Your task to perform on an android device: turn on javascript in the chrome app Image 0: 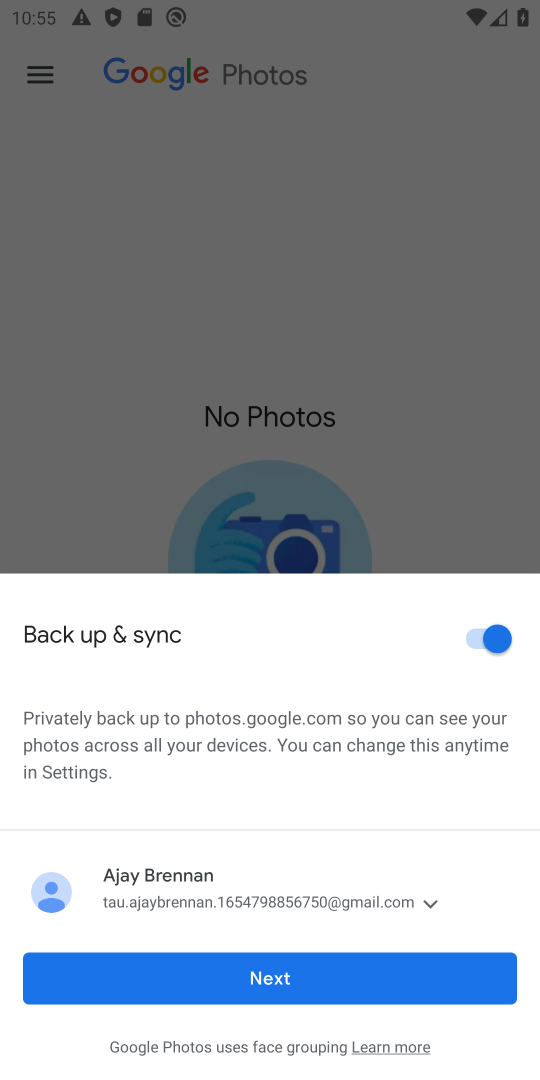
Step 0: press home button
Your task to perform on an android device: turn on javascript in the chrome app Image 1: 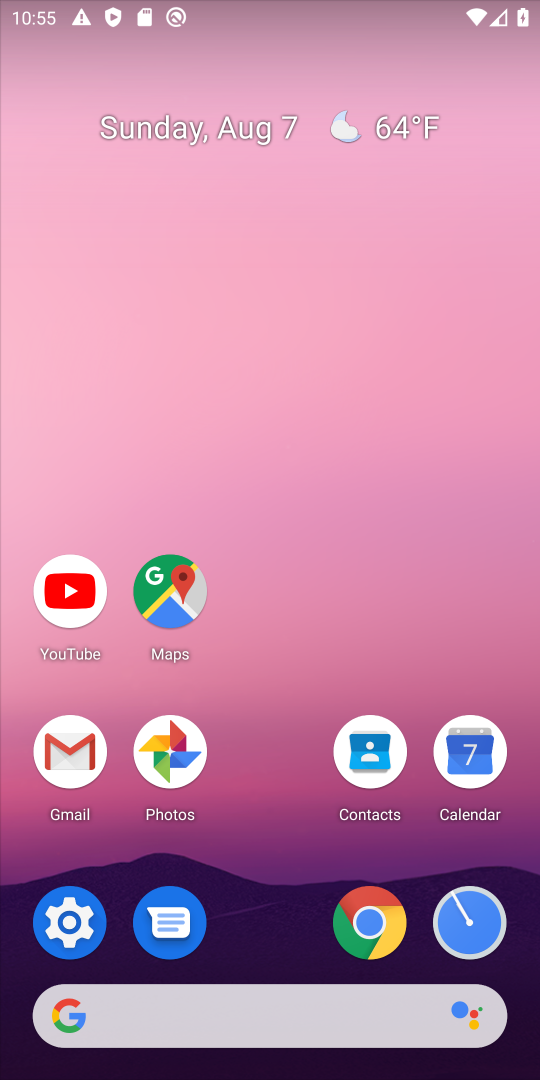
Step 1: click (364, 925)
Your task to perform on an android device: turn on javascript in the chrome app Image 2: 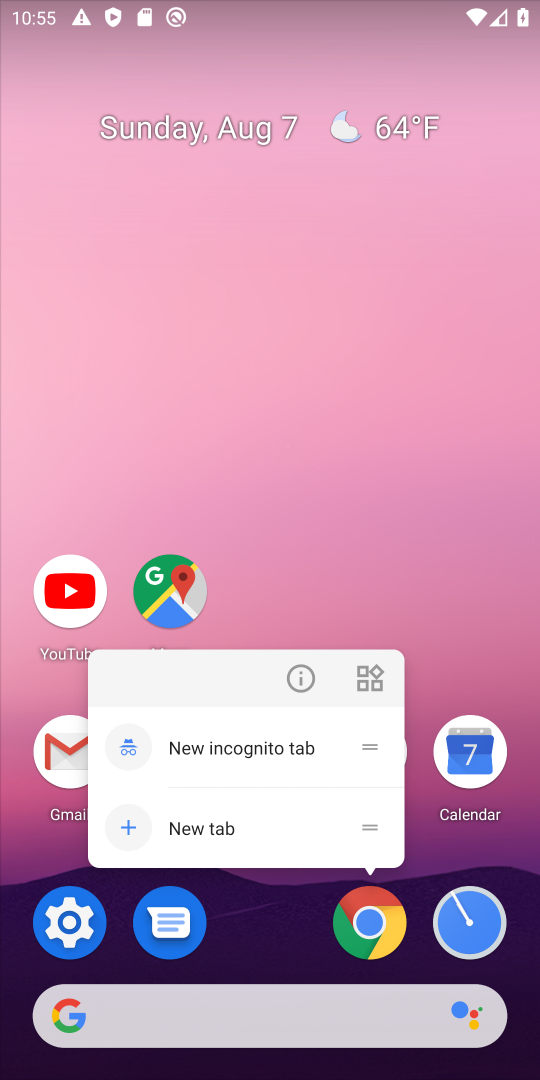
Step 2: click (382, 910)
Your task to perform on an android device: turn on javascript in the chrome app Image 3: 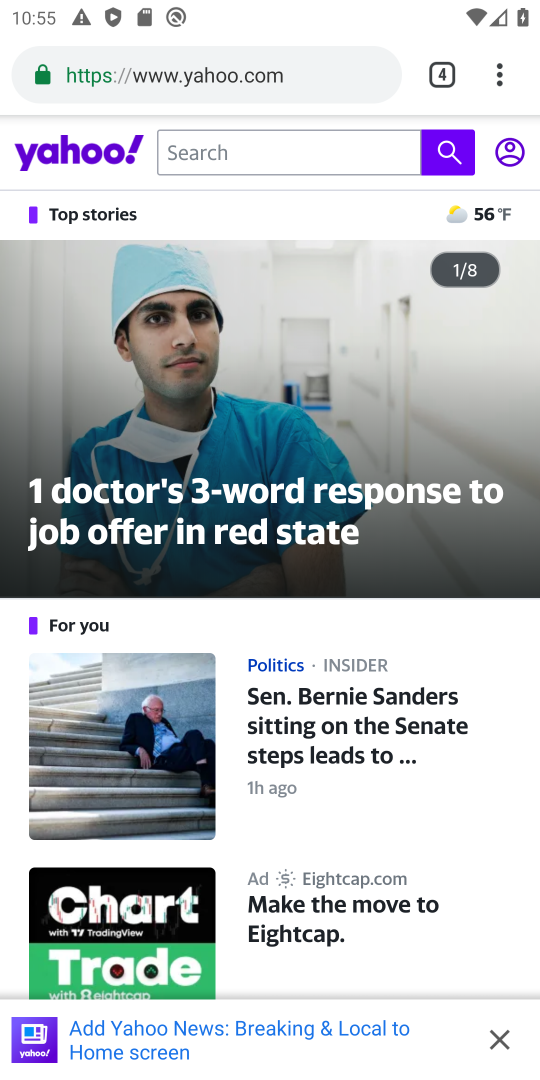
Step 3: click (496, 80)
Your task to perform on an android device: turn on javascript in the chrome app Image 4: 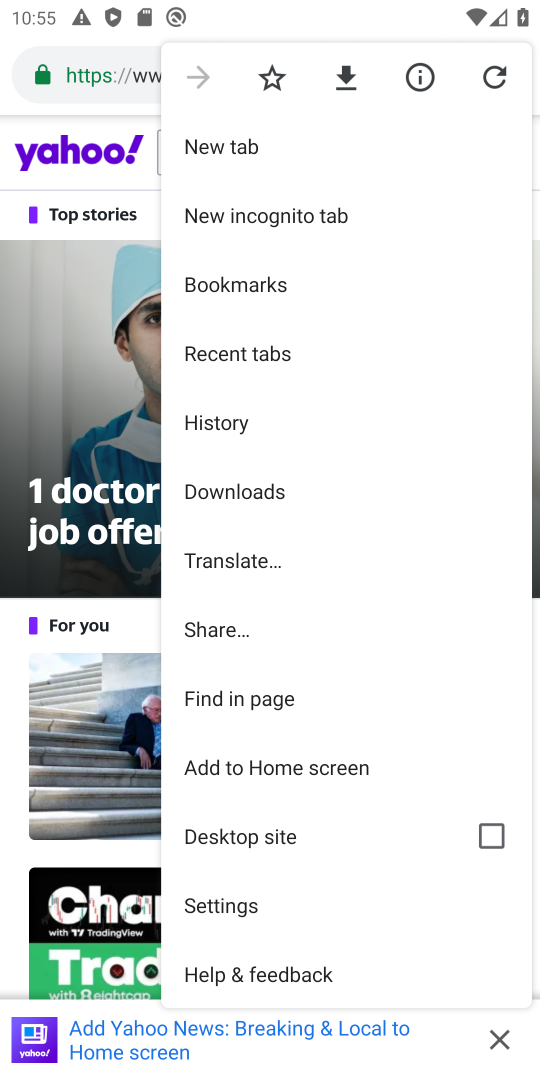
Step 4: click (217, 901)
Your task to perform on an android device: turn on javascript in the chrome app Image 5: 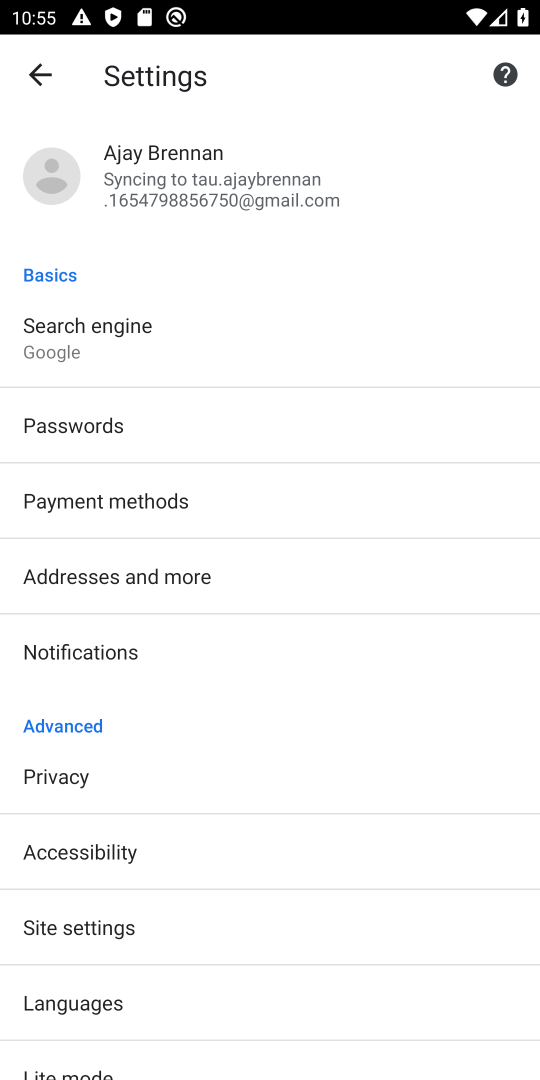
Step 5: click (76, 916)
Your task to perform on an android device: turn on javascript in the chrome app Image 6: 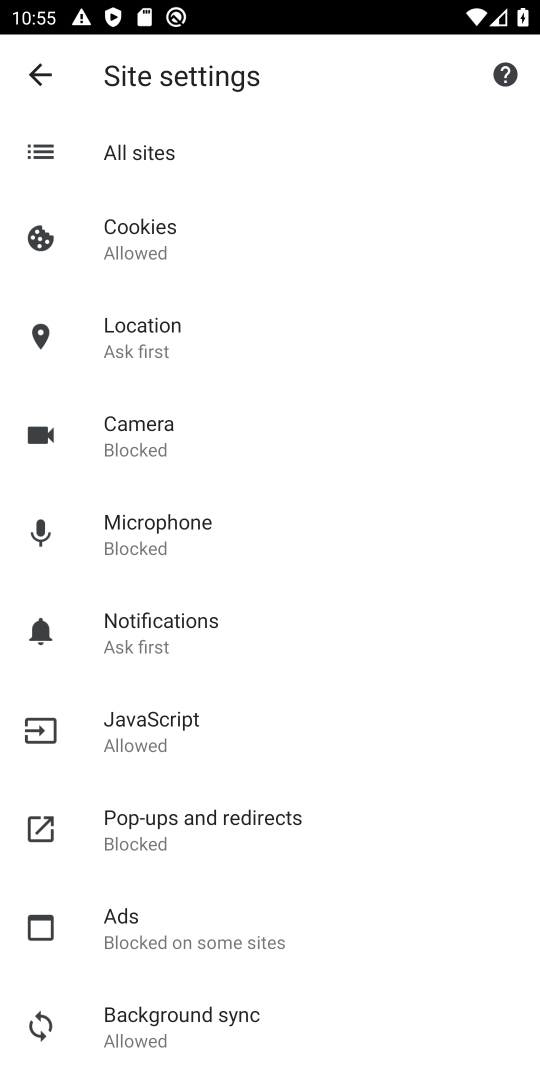
Step 6: click (162, 733)
Your task to perform on an android device: turn on javascript in the chrome app Image 7: 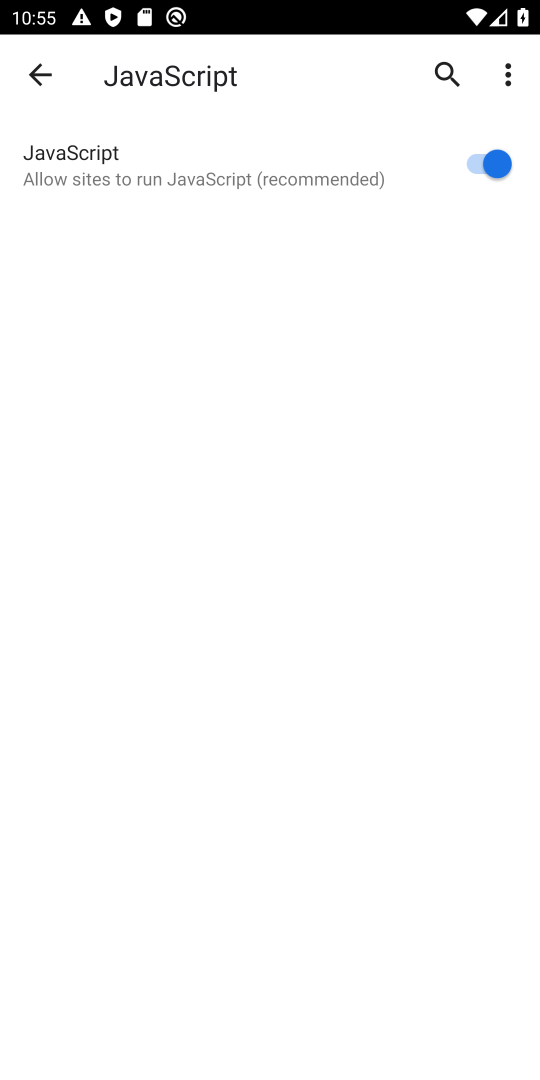
Step 7: task complete